Your task to perform on an android device: see tabs open on other devices in the chrome app Image 0: 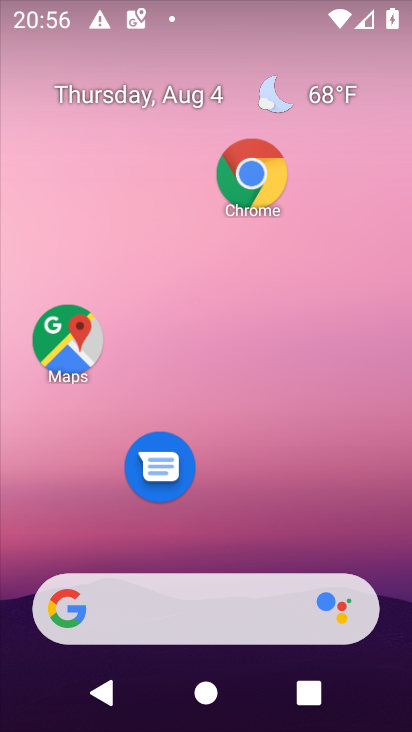
Step 0: drag from (387, 506) to (312, 693)
Your task to perform on an android device: see tabs open on other devices in the chrome app Image 1: 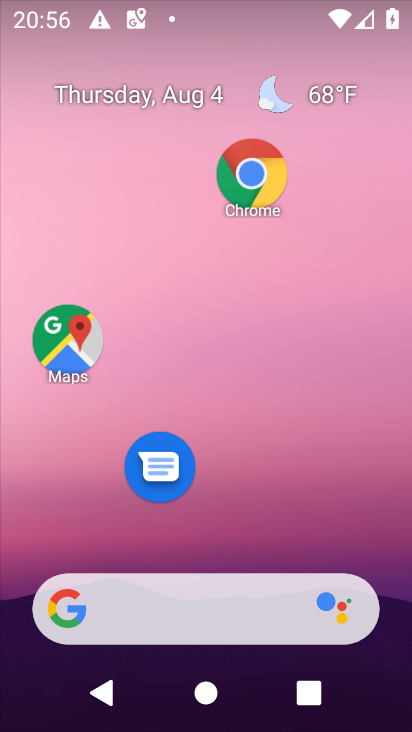
Step 1: drag from (272, 511) to (322, 39)
Your task to perform on an android device: see tabs open on other devices in the chrome app Image 2: 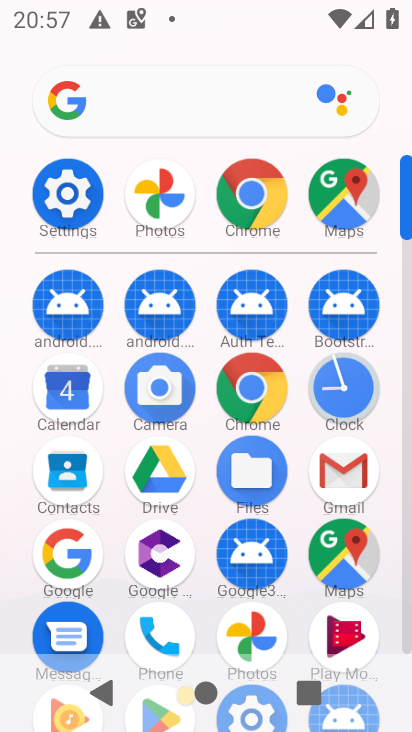
Step 2: click (269, 205)
Your task to perform on an android device: see tabs open on other devices in the chrome app Image 3: 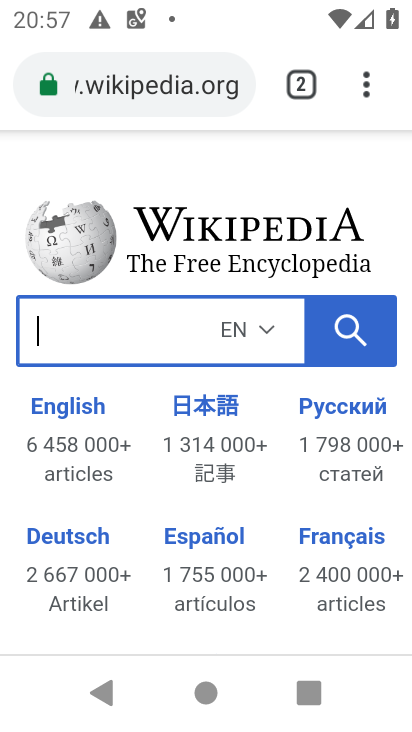
Step 3: click (361, 76)
Your task to perform on an android device: see tabs open on other devices in the chrome app Image 4: 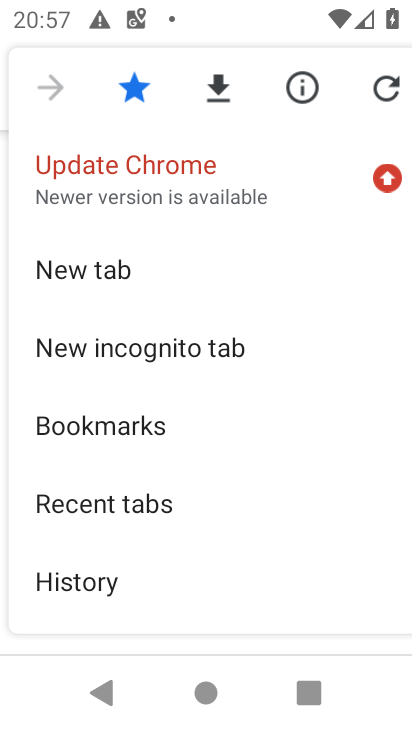
Step 4: drag from (351, 596) to (388, 100)
Your task to perform on an android device: see tabs open on other devices in the chrome app Image 5: 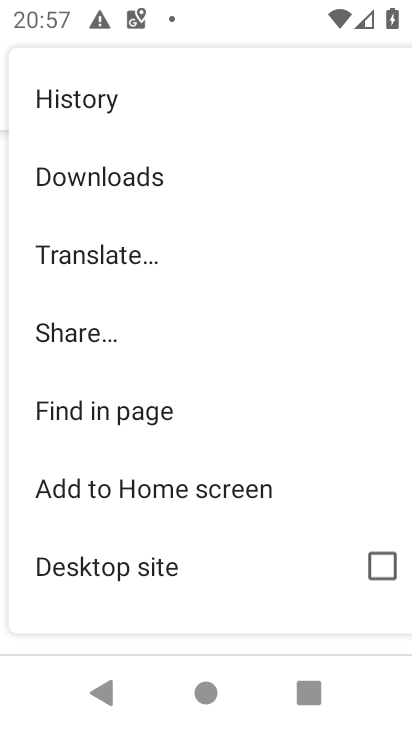
Step 5: drag from (215, 133) to (279, 704)
Your task to perform on an android device: see tabs open on other devices in the chrome app Image 6: 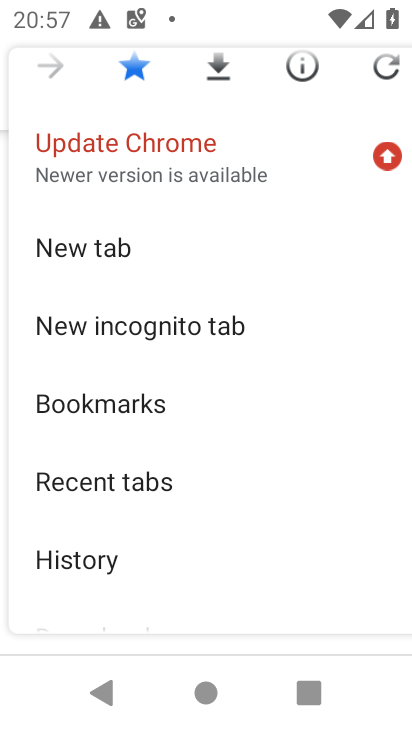
Step 6: click (97, 484)
Your task to perform on an android device: see tabs open on other devices in the chrome app Image 7: 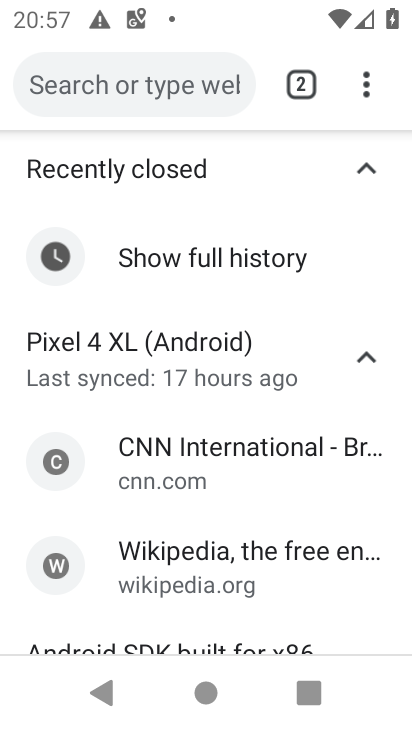
Step 7: task complete